Your task to perform on an android device: What's on my calendar today? Image 0: 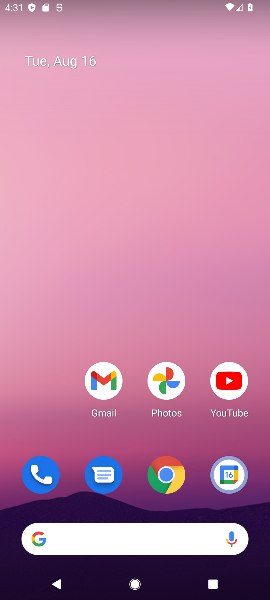
Step 0: drag from (267, 502) to (83, 38)
Your task to perform on an android device: What's on my calendar today? Image 1: 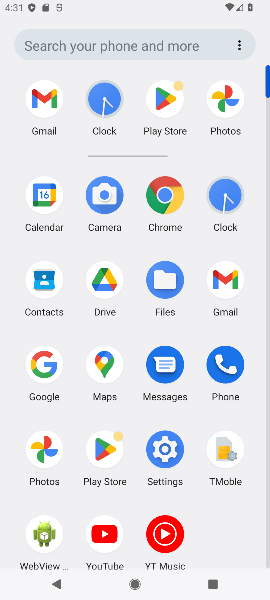
Step 1: click (39, 198)
Your task to perform on an android device: What's on my calendar today? Image 2: 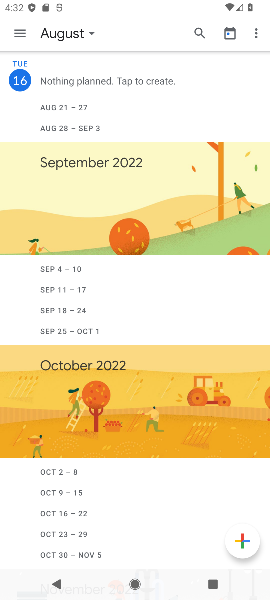
Step 2: task complete